Your task to perform on an android device: delete a single message in the gmail app Image 0: 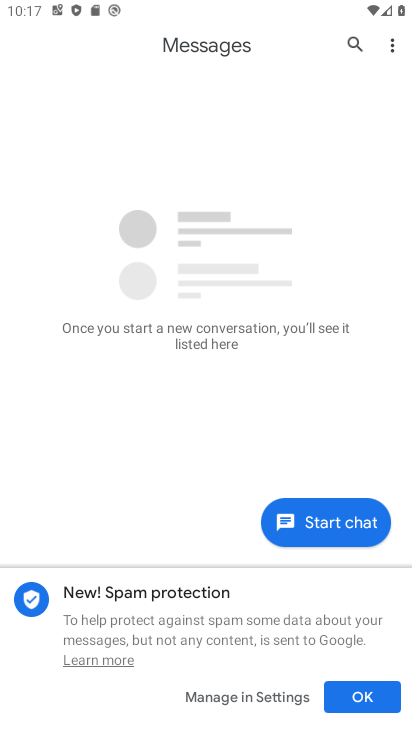
Step 0: press home button
Your task to perform on an android device: delete a single message in the gmail app Image 1: 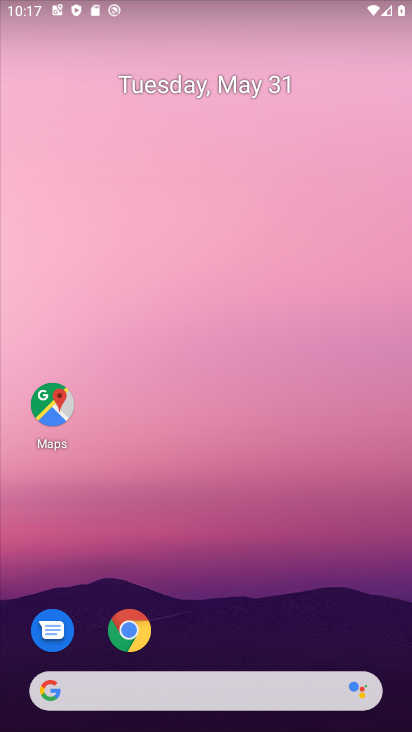
Step 1: drag from (195, 641) to (219, 196)
Your task to perform on an android device: delete a single message in the gmail app Image 2: 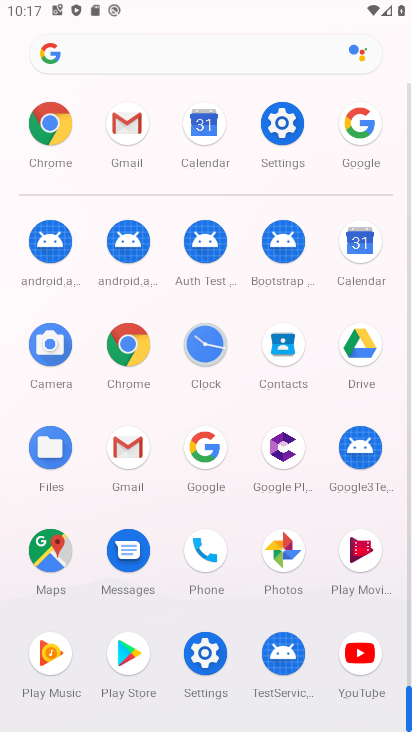
Step 2: click (131, 462)
Your task to perform on an android device: delete a single message in the gmail app Image 3: 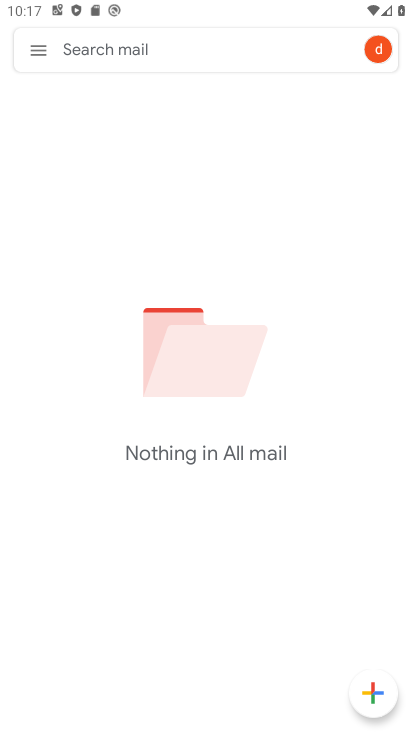
Step 3: task complete